Your task to perform on an android device: toggle location history Image 0: 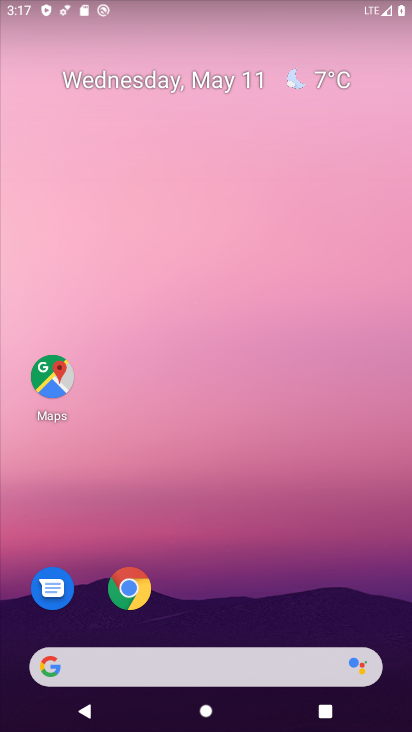
Step 0: drag from (218, 726) to (200, 140)
Your task to perform on an android device: toggle location history Image 1: 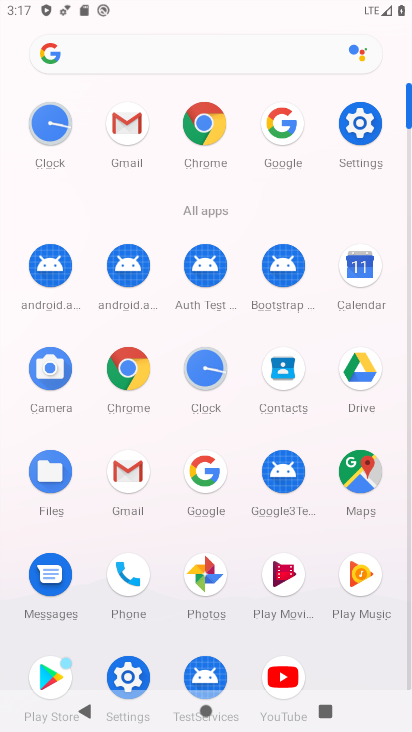
Step 1: click (361, 129)
Your task to perform on an android device: toggle location history Image 2: 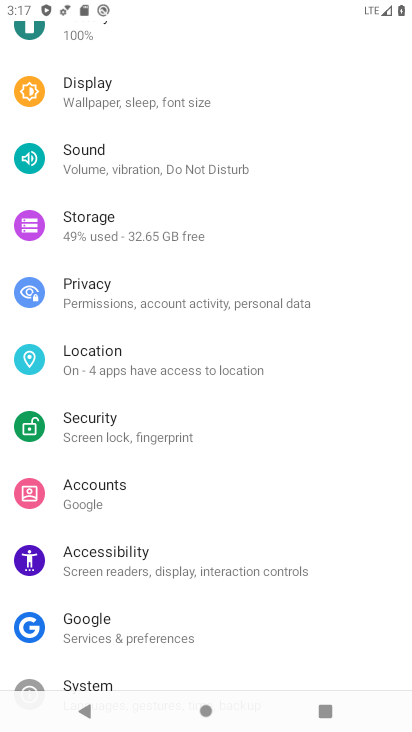
Step 2: drag from (319, 140) to (323, 591)
Your task to perform on an android device: toggle location history Image 3: 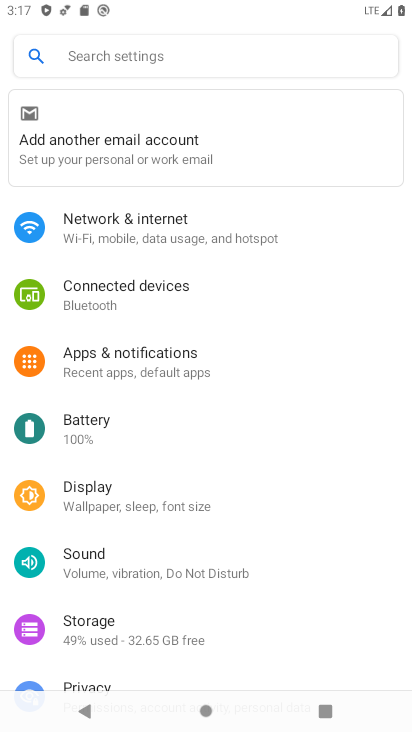
Step 3: drag from (148, 665) to (144, 330)
Your task to perform on an android device: toggle location history Image 4: 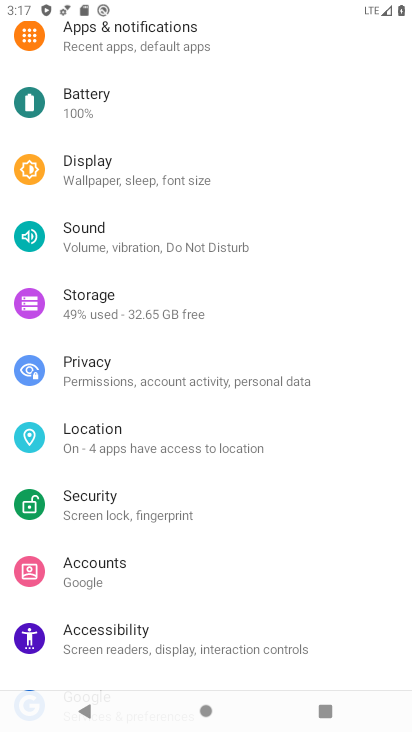
Step 4: click (92, 439)
Your task to perform on an android device: toggle location history Image 5: 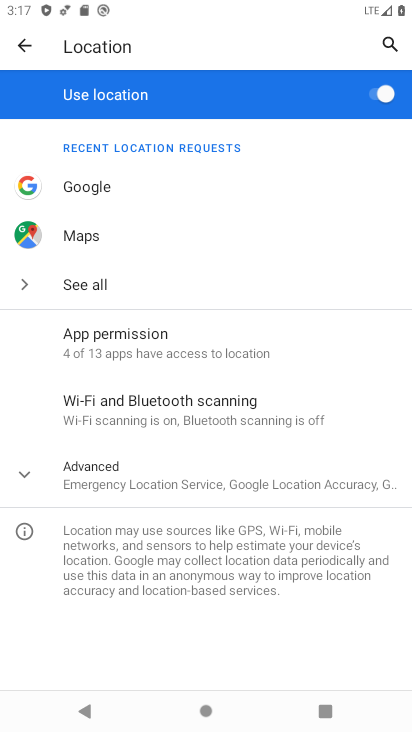
Step 5: click (155, 478)
Your task to perform on an android device: toggle location history Image 6: 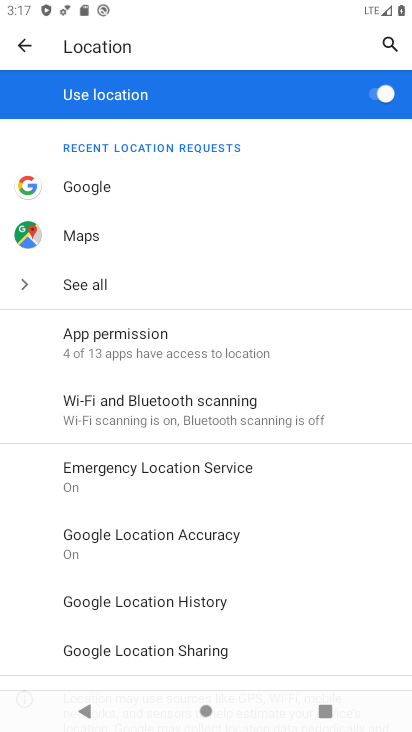
Step 6: click (153, 603)
Your task to perform on an android device: toggle location history Image 7: 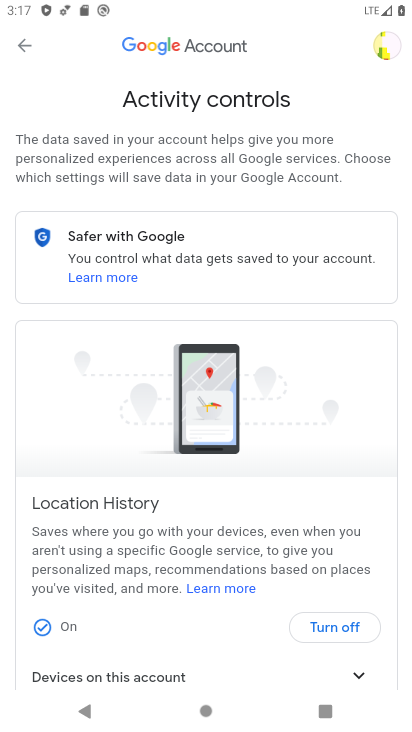
Step 7: click (334, 630)
Your task to perform on an android device: toggle location history Image 8: 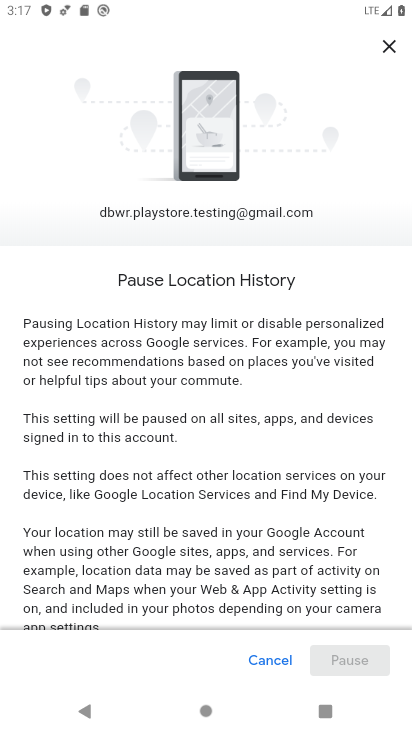
Step 8: drag from (246, 595) to (236, 189)
Your task to perform on an android device: toggle location history Image 9: 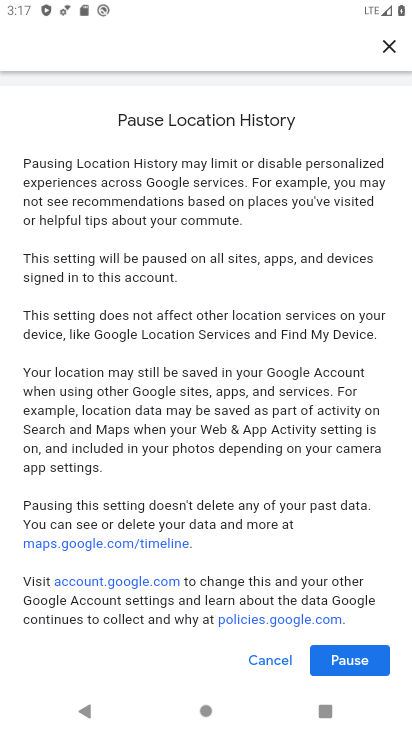
Step 9: click (333, 660)
Your task to perform on an android device: toggle location history Image 10: 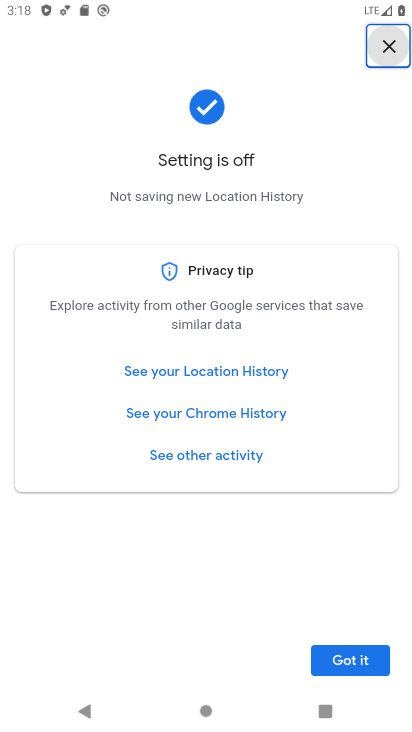
Step 10: click (339, 658)
Your task to perform on an android device: toggle location history Image 11: 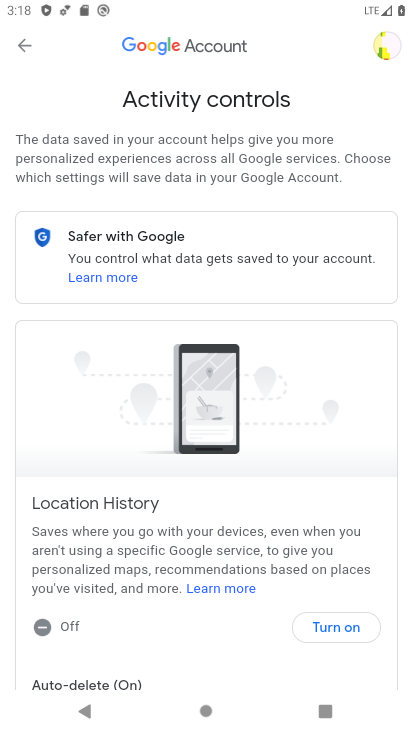
Step 11: task complete